Your task to perform on an android device: turn on sleep mode Image 0: 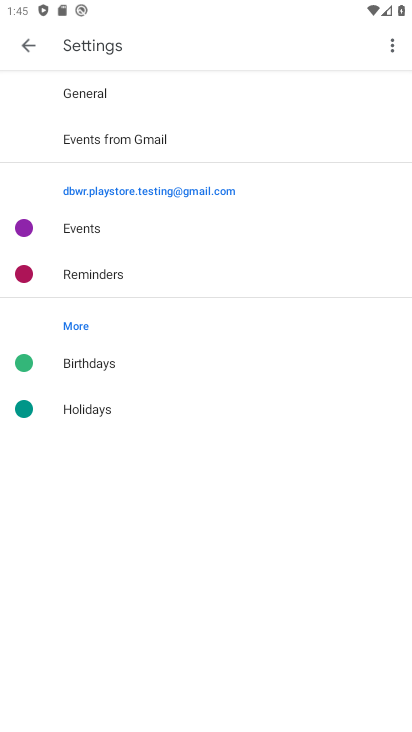
Step 0: press home button
Your task to perform on an android device: turn on sleep mode Image 1: 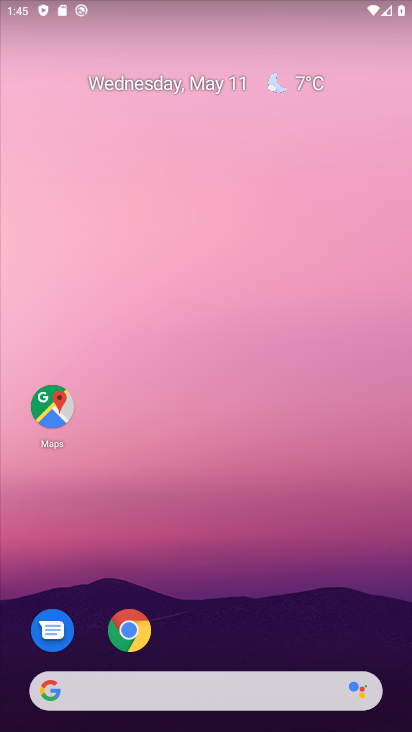
Step 1: drag from (375, 649) to (278, 10)
Your task to perform on an android device: turn on sleep mode Image 2: 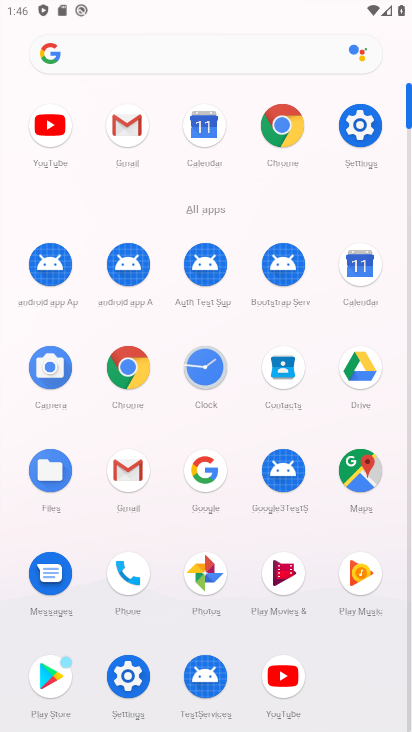
Step 2: click (136, 656)
Your task to perform on an android device: turn on sleep mode Image 3: 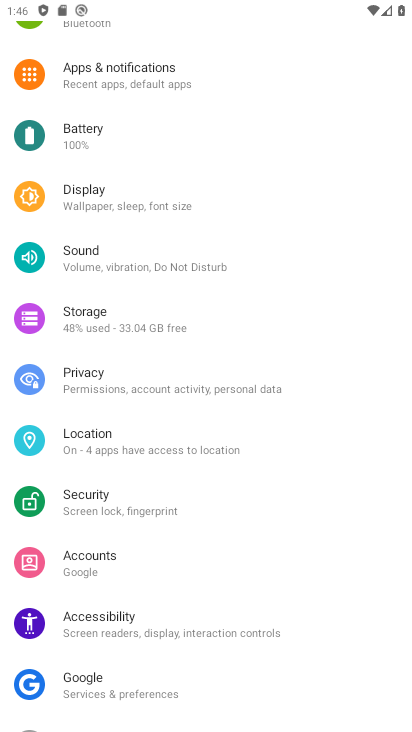
Step 3: task complete